Your task to perform on an android device: change text size in settings app Image 0: 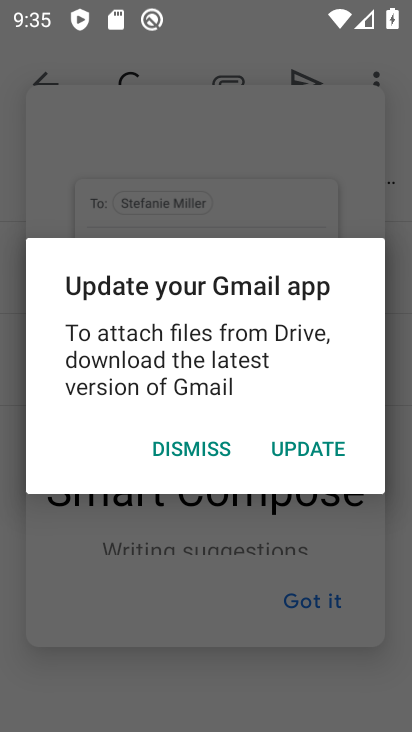
Step 0: press home button
Your task to perform on an android device: change text size in settings app Image 1: 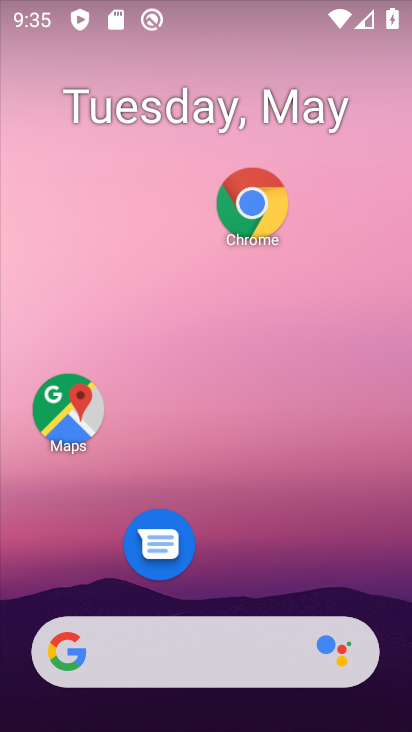
Step 1: drag from (394, 598) to (368, 95)
Your task to perform on an android device: change text size in settings app Image 2: 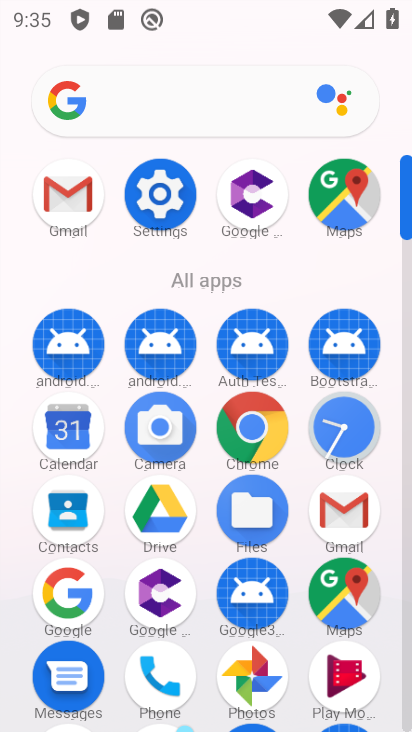
Step 2: click (172, 206)
Your task to perform on an android device: change text size in settings app Image 3: 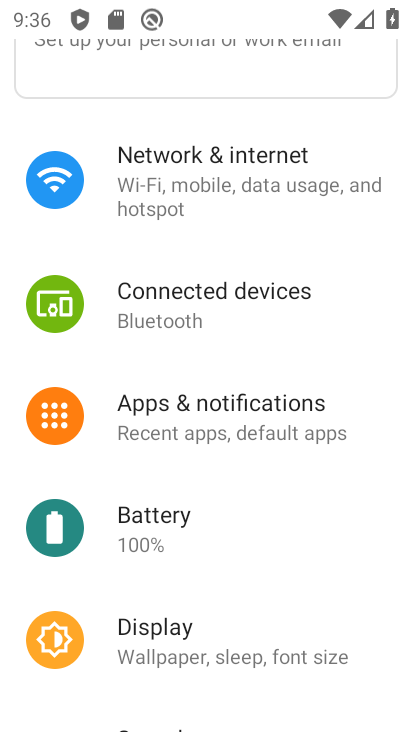
Step 3: click (205, 620)
Your task to perform on an android device: change text size in settings app Image 4: 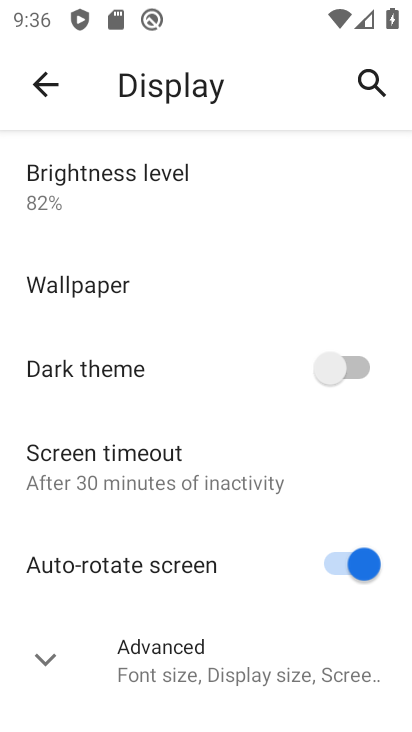
Step 4: drag from (267, 646) to (225, 279)
Your task to perform on an android device: change text size in settings app Image 5: 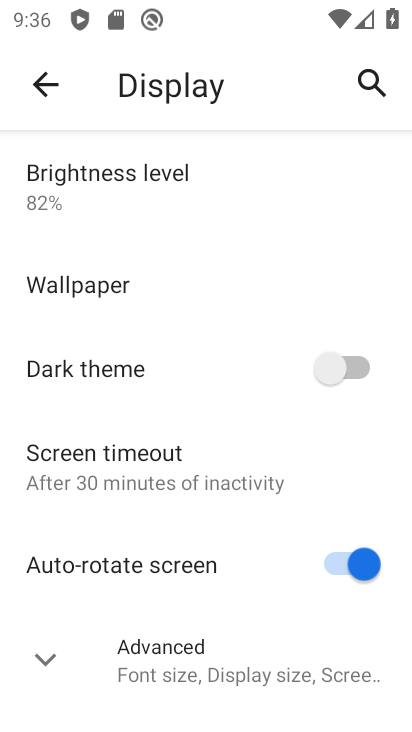
Step 5: click (296, 635)
Your task to perform on an android device: change text size in settings app Image 6: 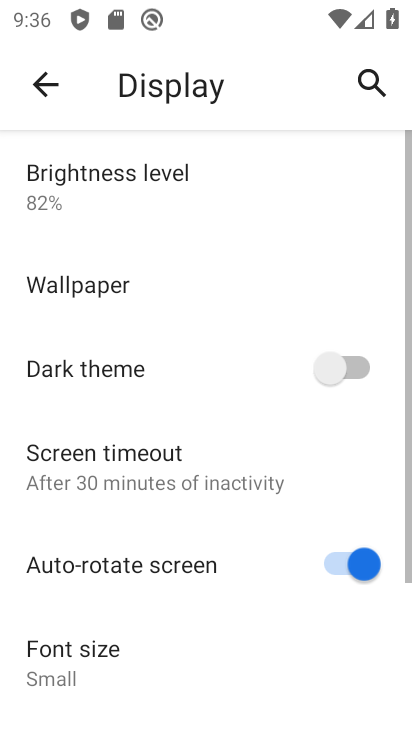
Step 6: drag from (276, 598) to (228, 306)
Your task to perform on an android device: change text size in settings app Image 7: 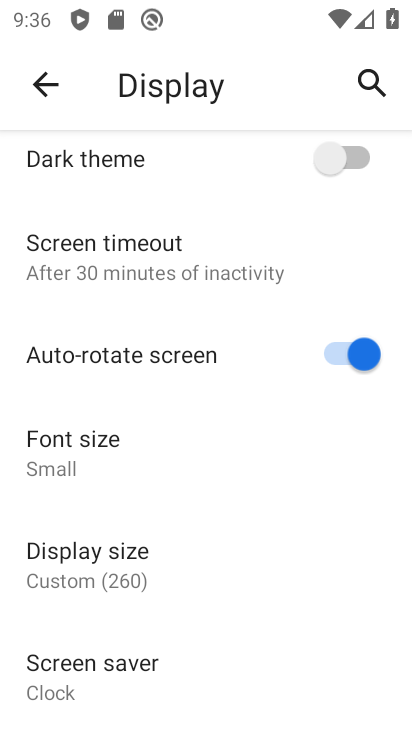
Step 7: click (247, 465)
Your task to perform on an android device: change text size in settings app Image 8: 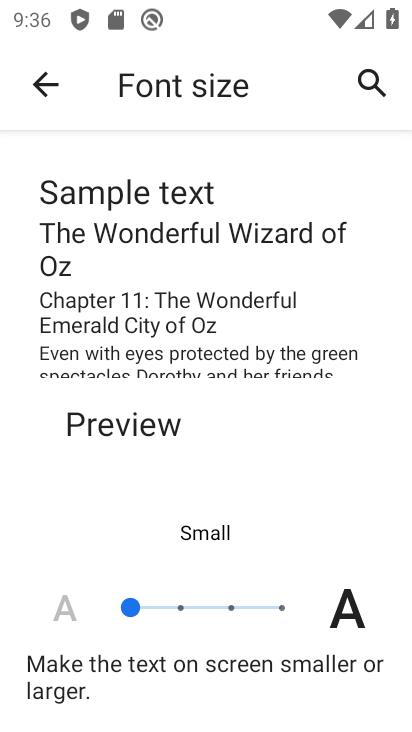
Step 8: click (182, 605)
Your task to perform on an android device: change text size in settings app Image 9: 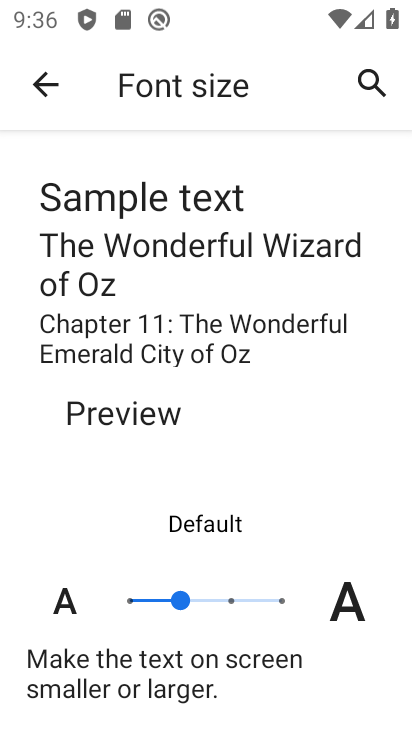
Step 9: task complete